Your task to perform on an android device: turn off translation in the chrome app Image 0: 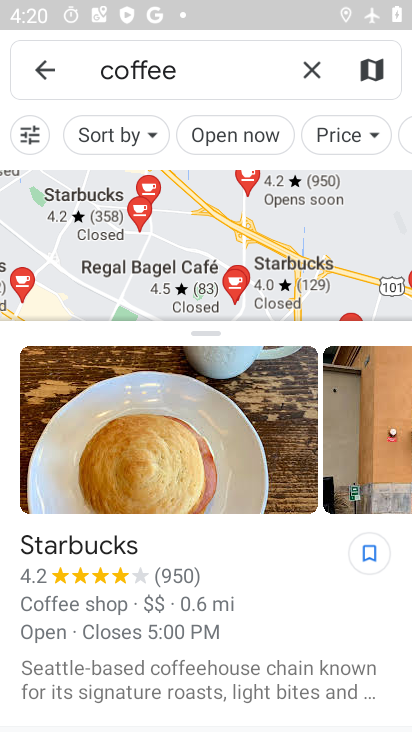
Step 0: press home button
Your task to perform on an android device: turn off translation in the chrome app Image 1: 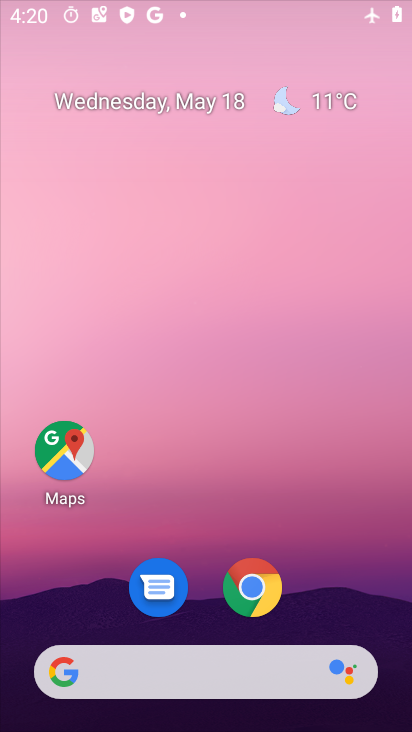
Step 1: drag from (215, 667) to (317, 26)
Your task to perform on an android device: turn off translation in the chrome app Image 2: 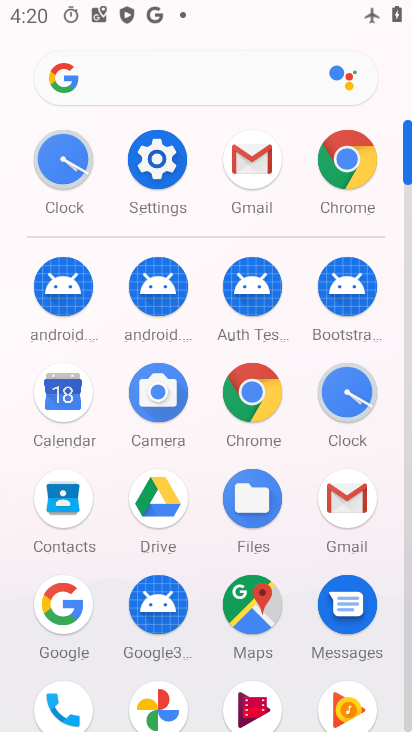
Step 2: click (346, 195)
Your task to perform on an android device: turn off translation in the chrome app Image 3: 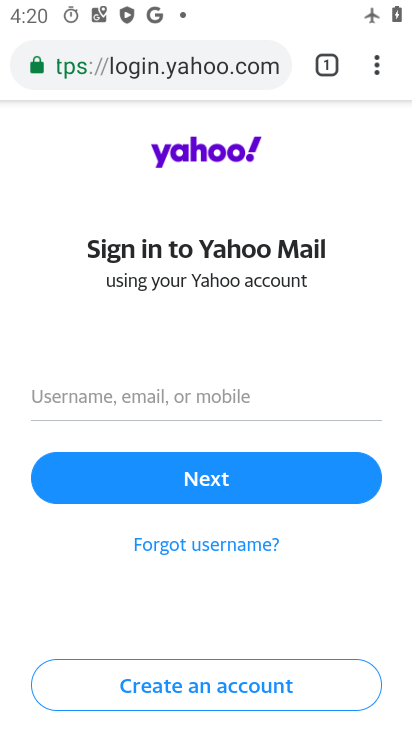
Step 3: click (374, 71)
Your task to perform on an android device: turn off translation in the chrome app Image 4: 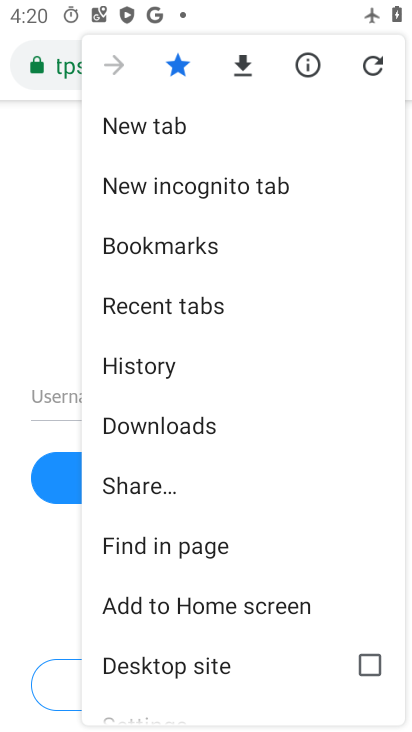
Step 4: drag from (218, 485) to (243, 69)
Your task to perform on an android device: turn off translation in the chrome app Image 5: 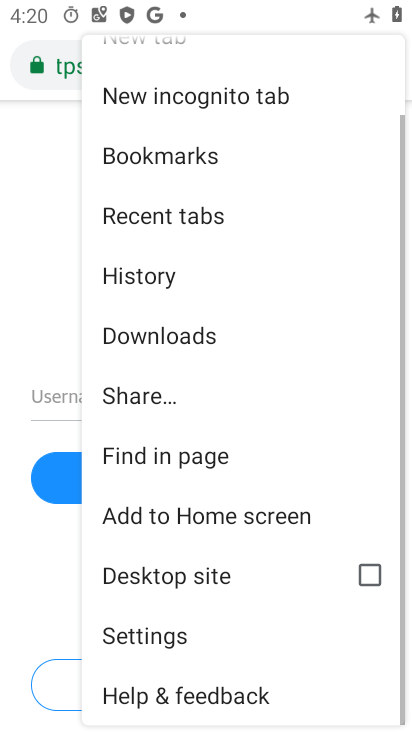
Step 5: click (183, 649)
Your task to perform on an android device: turn off translation in the chrome app Image 6: 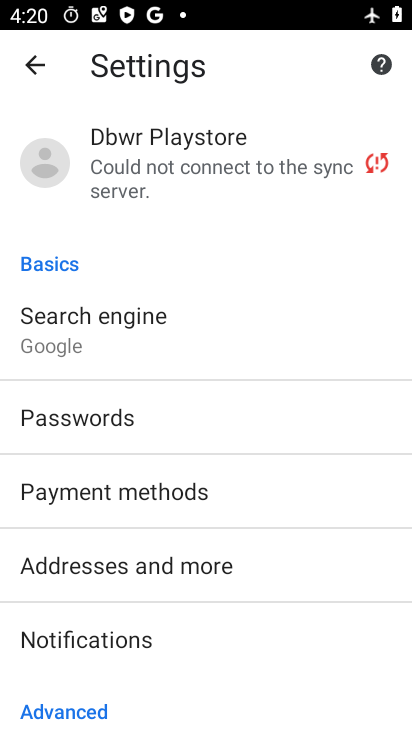
Step 6: drag from (147, 568) to (170, 450)
Your task to perform on an android device: turn off translation in the chrome app Image 7: 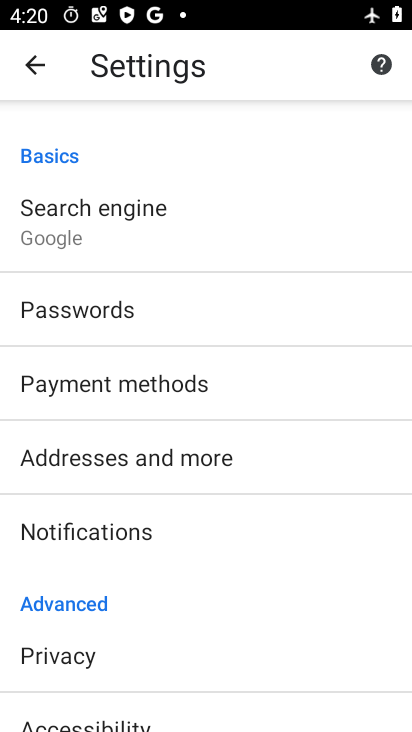
Step 7: click (127, 543)
Your task to perform on an android device: turn off translation in the chrome app Image 8: 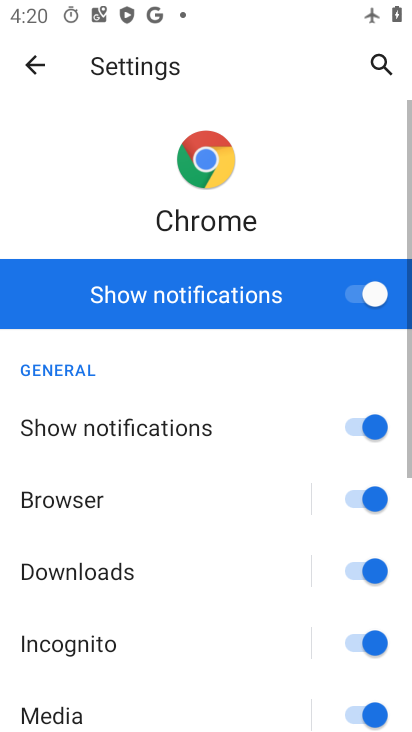
Step 8: click (357, 297)
Your task to perform on an android device: turn off translation in the chrome app Image 9: 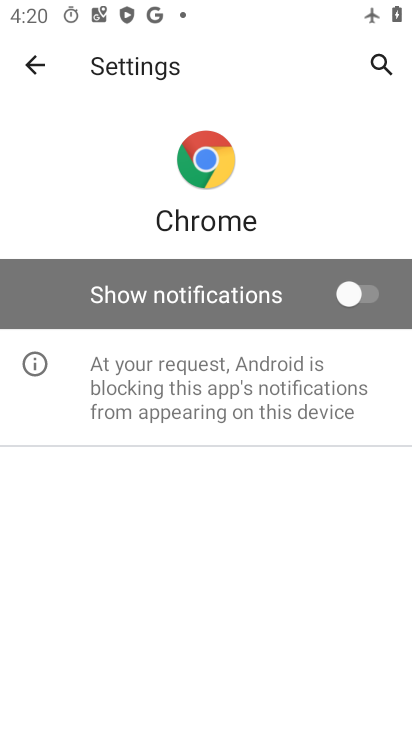
Step 9: task complete